Your task to perform on an android device: open app "Adobe Acrobat Reader: Edit PDF" Image 0: 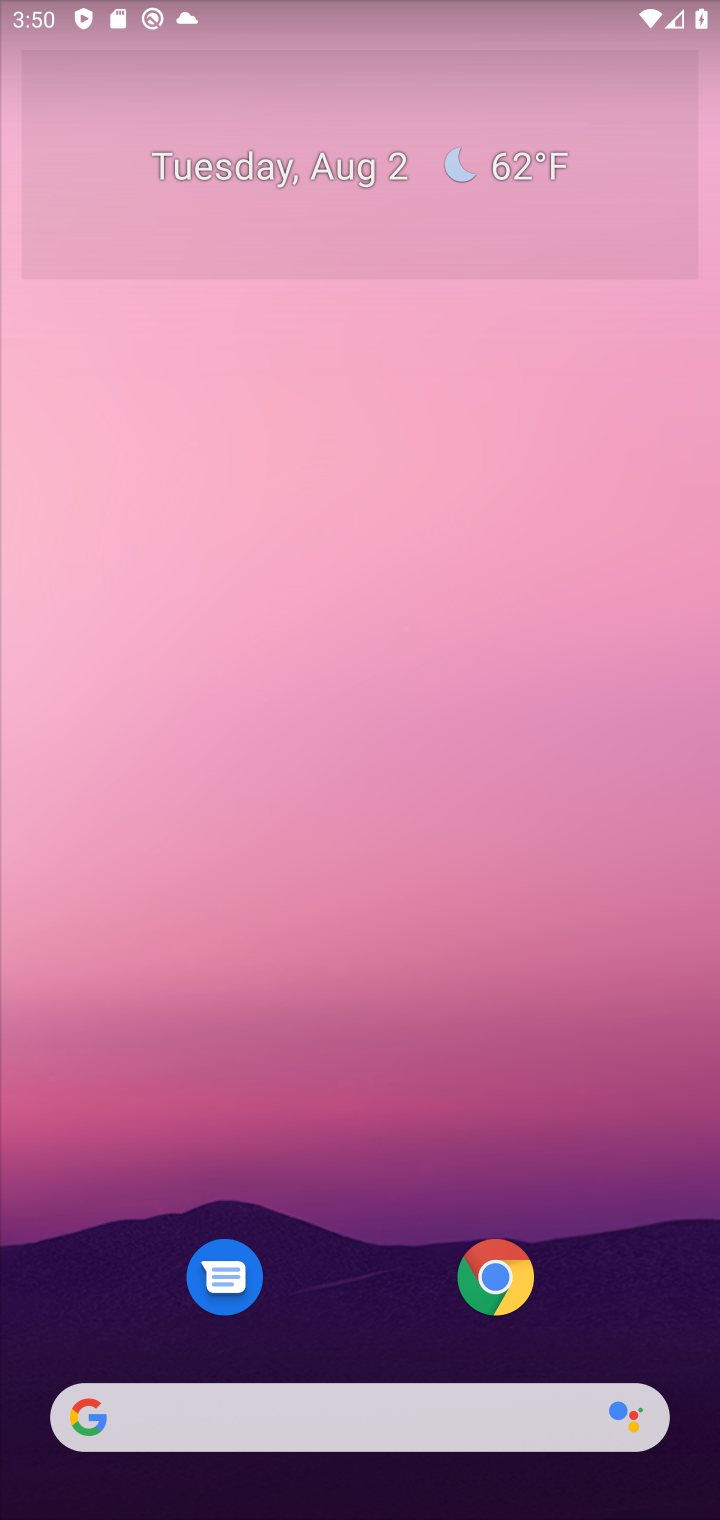
Step 0: drag from (625, 1044) to (636, 215)
Your task to perform on an android device: open app "Adobe Acrobat Reader: Edit PDF" Image 1: 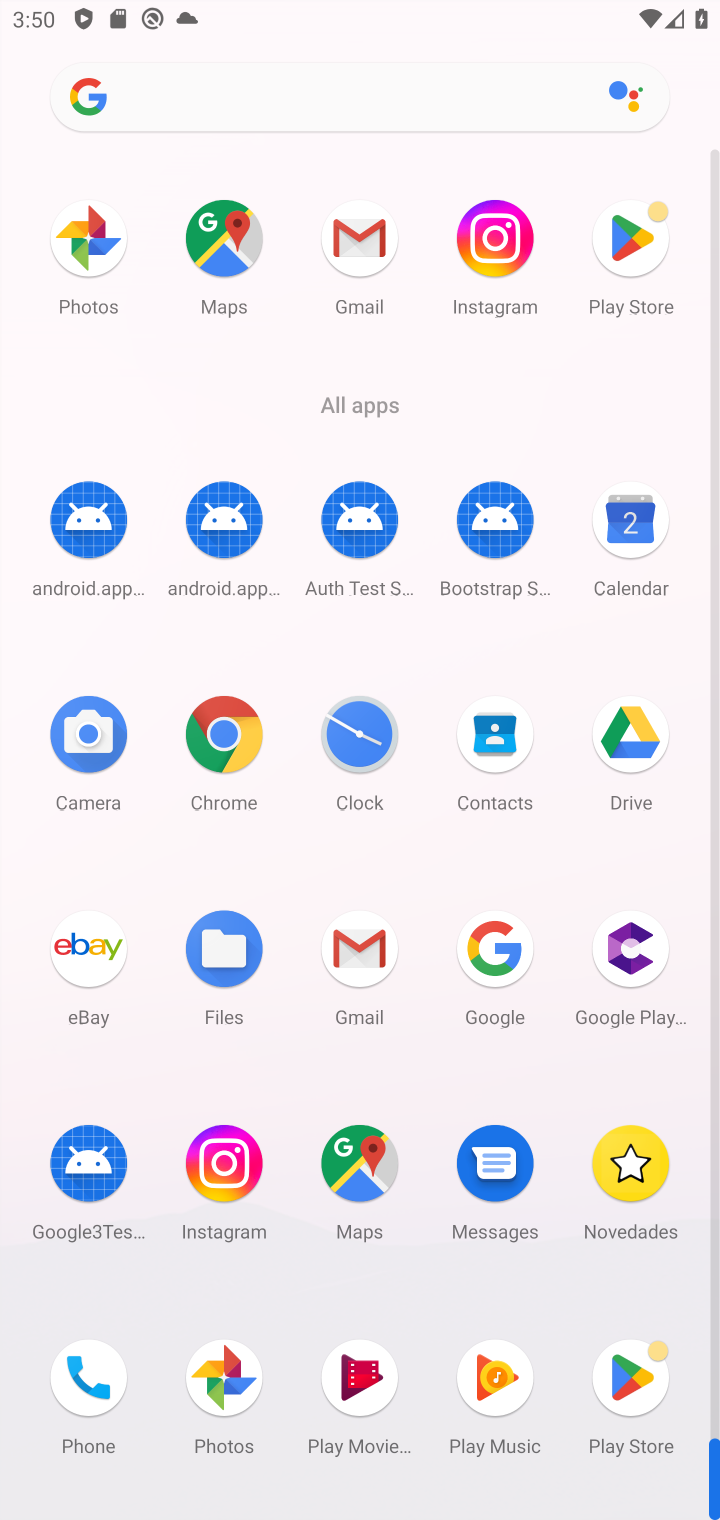
Step 1: click (642, 1375)
Your task to perform on an android device: open app "Adobe Acrobat Reader: Edit PDF" Image 2: 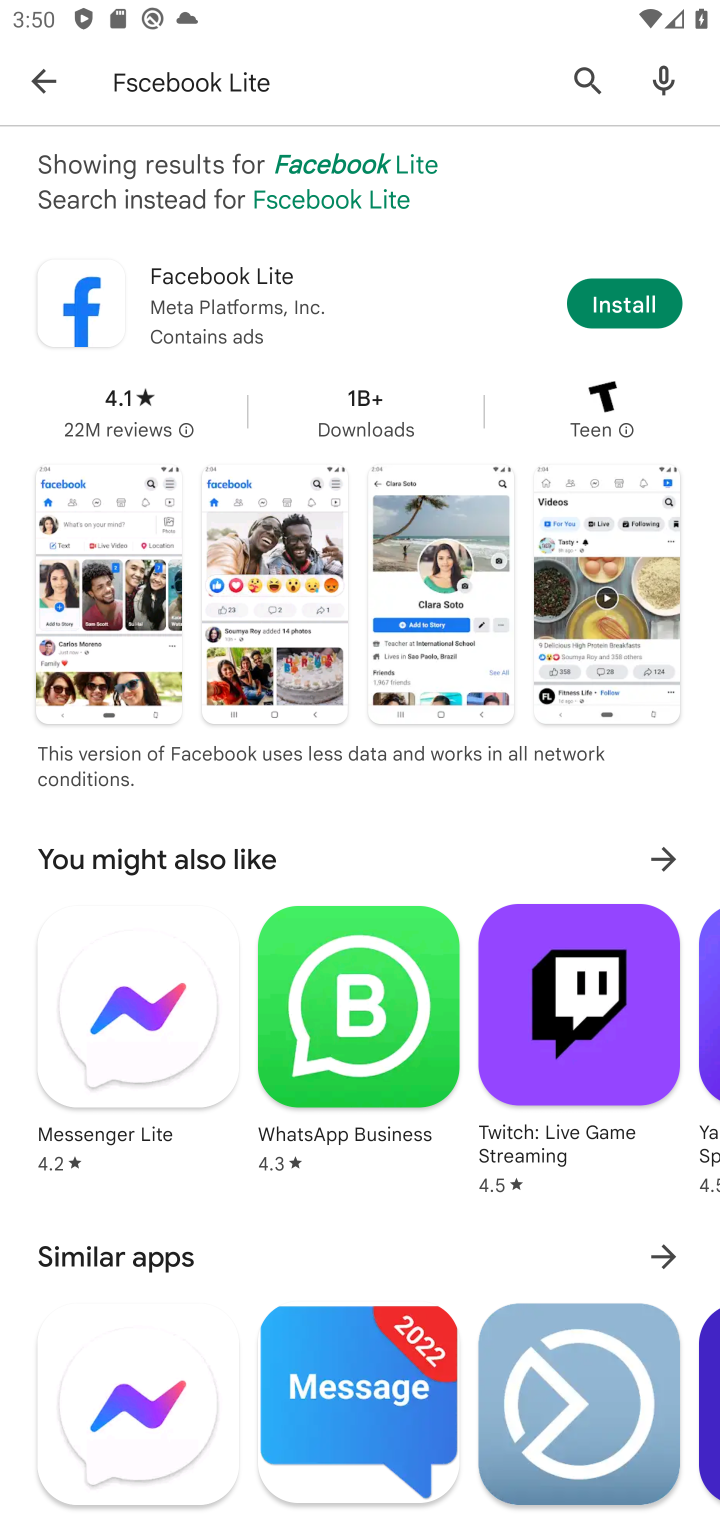
Step 2: click (299, 70)
Your task to perform on an android device: open app "Adobe Acrobat Reader: Edit PDF" Image 3: 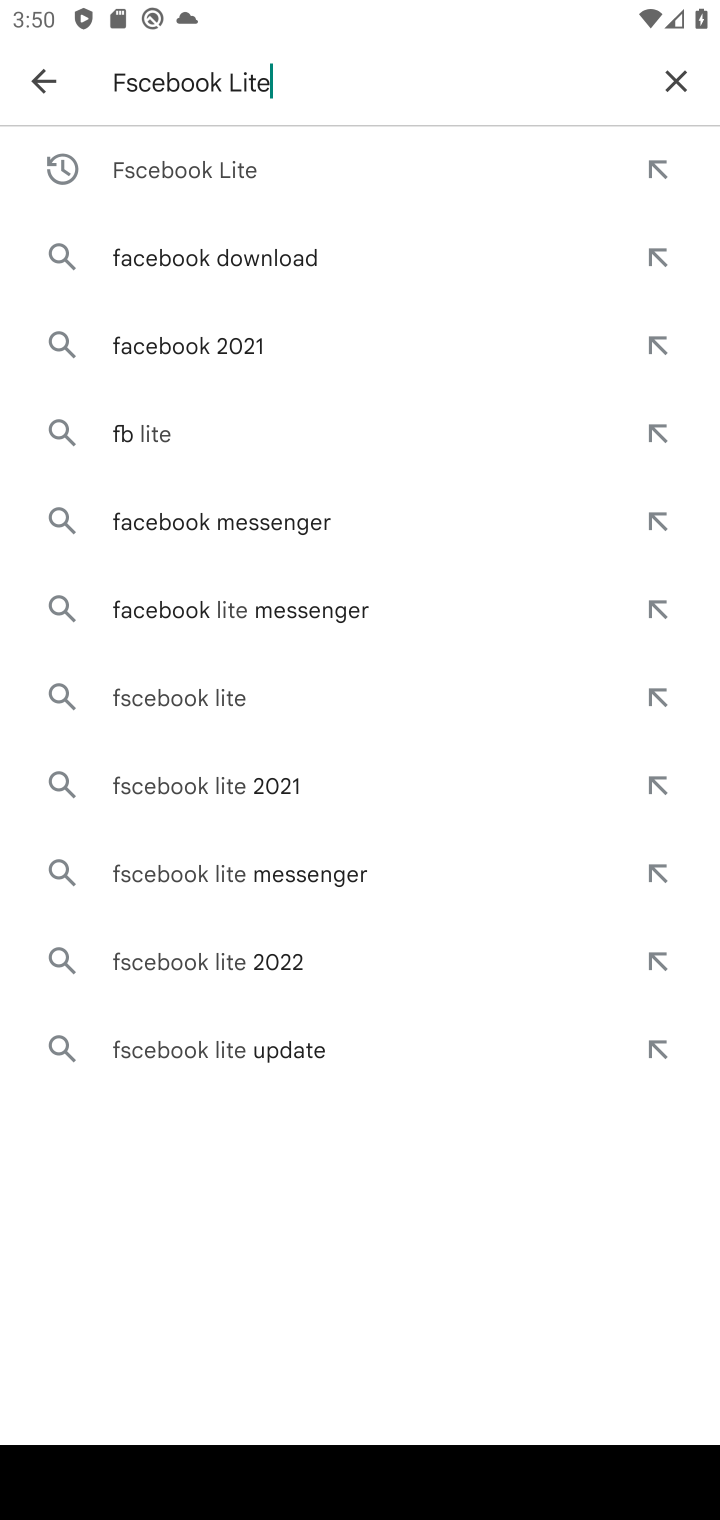
Step 3: click (656, 86)
Your task to perform on an android device: open app "Adobe Acrobat Reader: Edit PDF" Image 4: 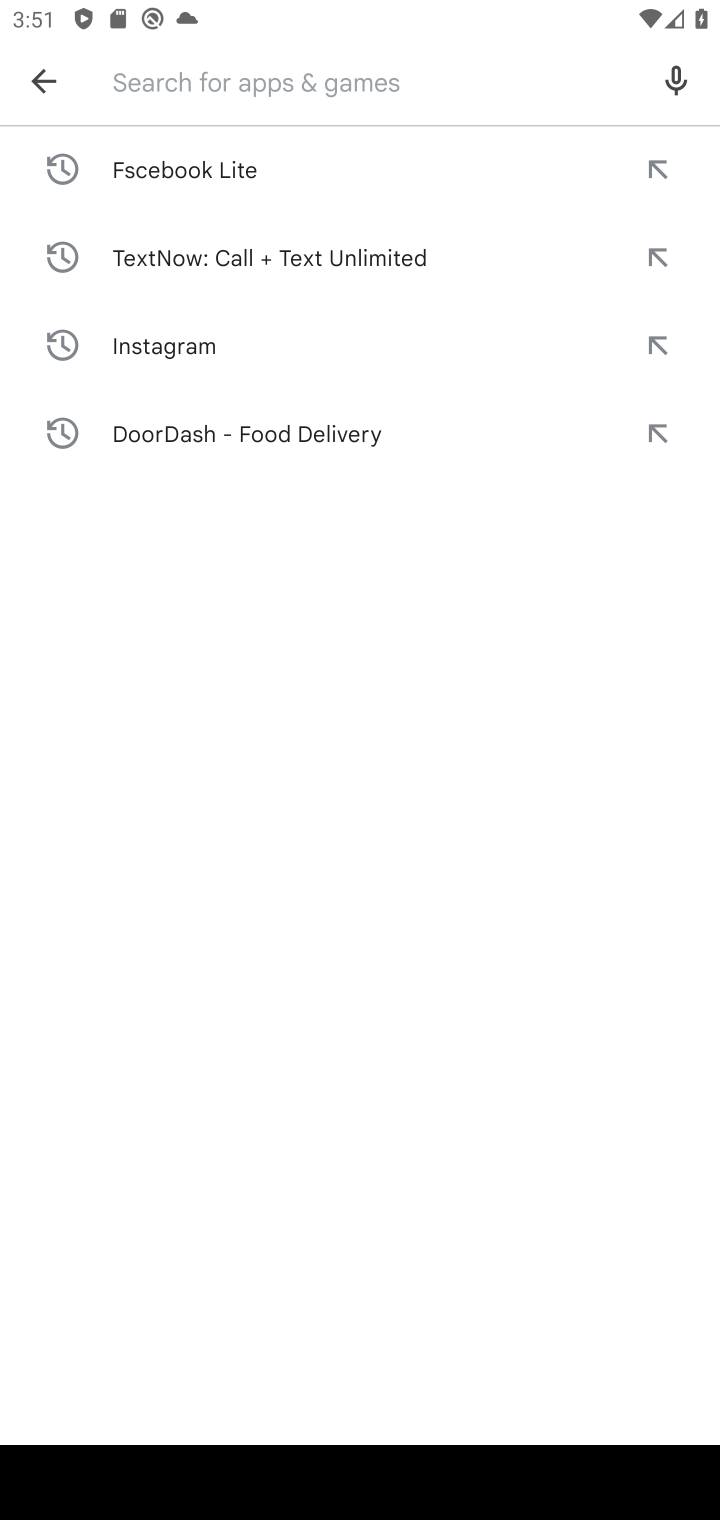
Step 4: type "Adobe Acrobat Reade: Edit PDF"
Your task to perform on an android device: open app "Adobe Acrobat Reader: Edit PDF" Image 5: 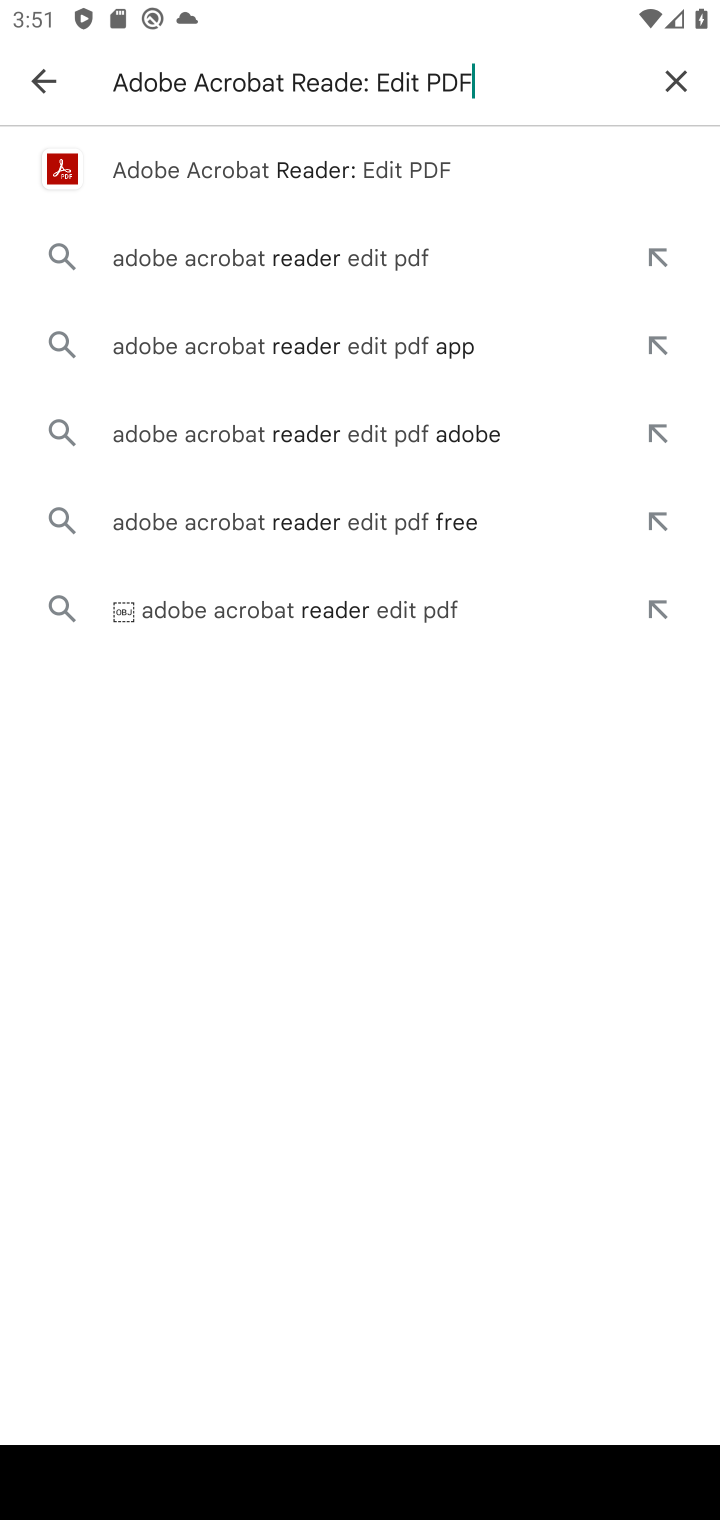
Step 5: click (176, 180)
Your task to perform on an android device: open app "Adobe Acrobat Reader: Edit PDF" Image 6: 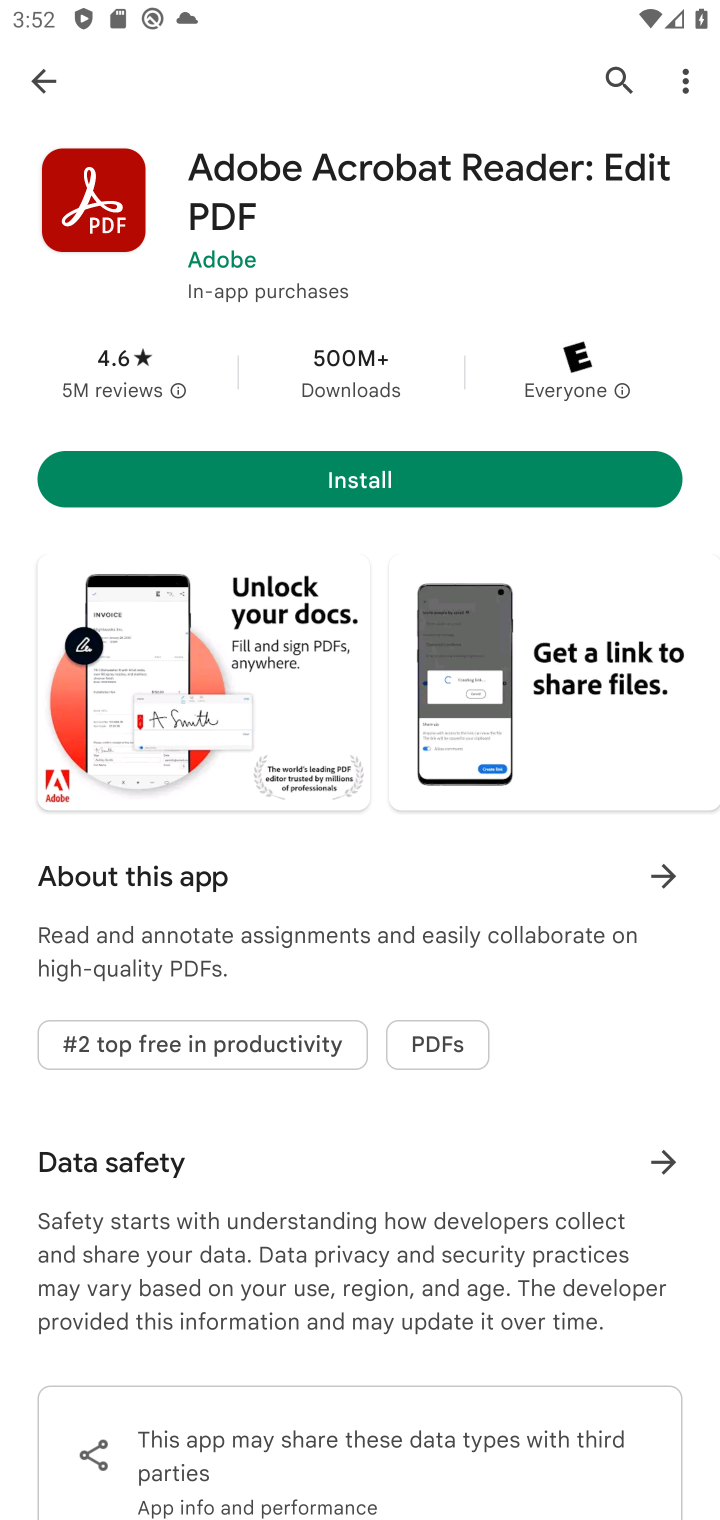
Step 6: task complete